Your task to perform on an android device: turn off smart reply in the gmail app Image 0: 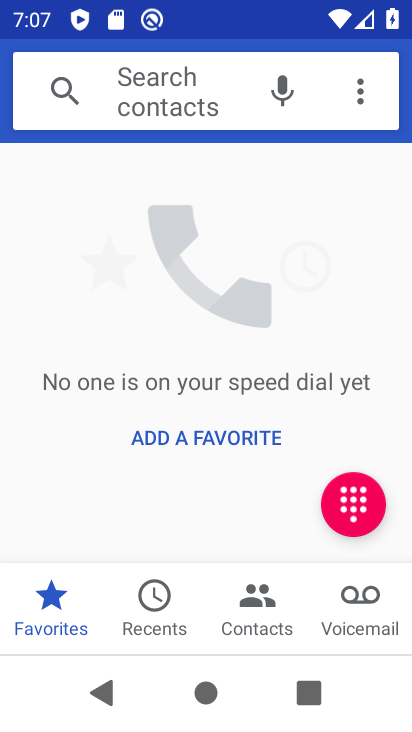
Step 0: press home button
Your task to perform on an android device: turn off smart reply in the gmail app Image 1: 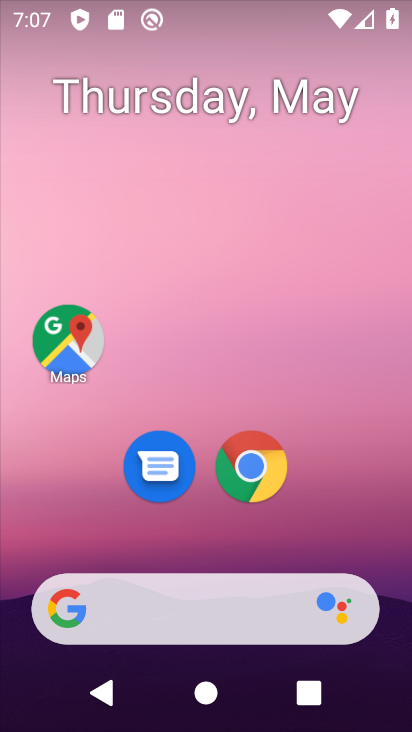
Step 1: drag from (333, 519) to (283, 11)
Your task to perform on an android device: turn off smart reply in the gmail app Image 2: 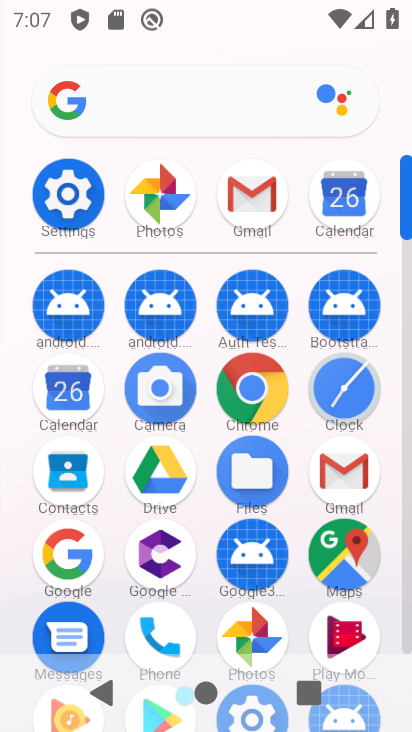
Step 2: click (252, 194)
Your task to perform on an android device: turn off smart reply in the gmail app Image 3: 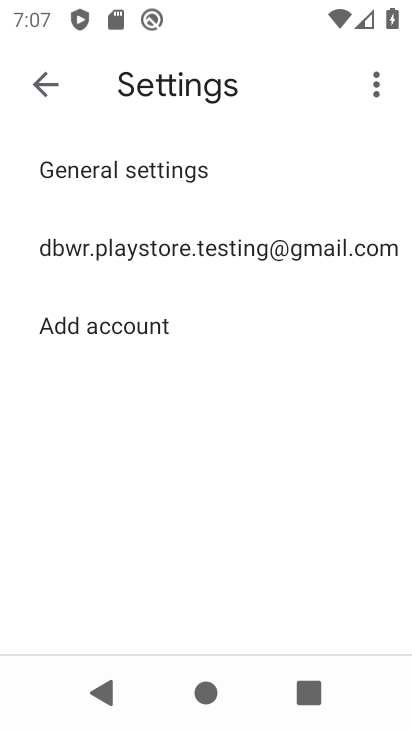
Step 3: click (136, 243)
Your task to perform on an android device: turn off smart reply in the gmail app Image 4: 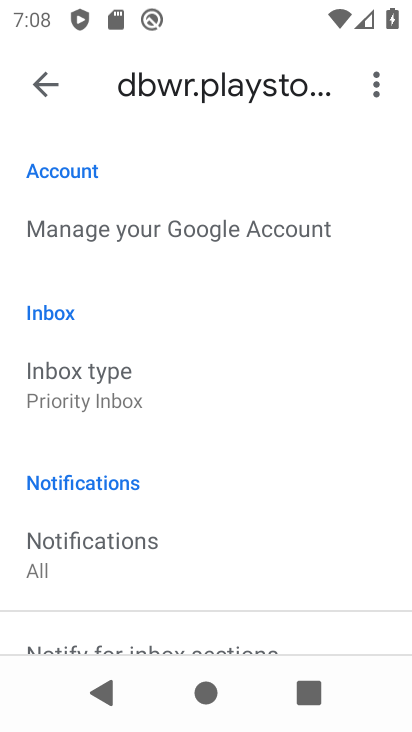
Step 4: drag from (239, 474) to (215, 204)
Your task to perform on an android device: turn off smart reply in the gmail app Image 5: 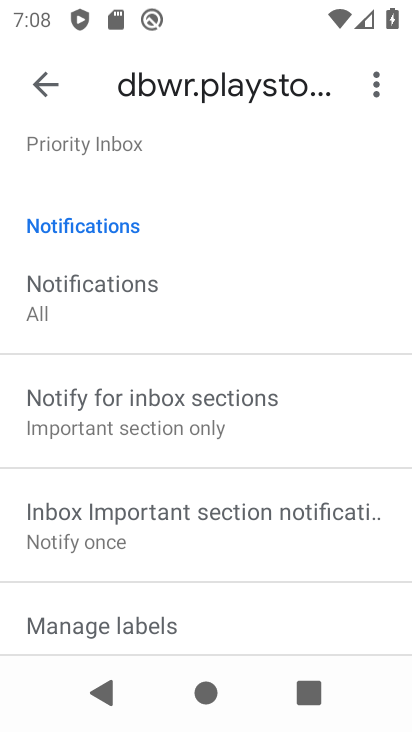
Step 5: drag from (221, 567) to (173, 232)
Your task to perform on an android device: turn off smart reply in the gmail app Image 6: 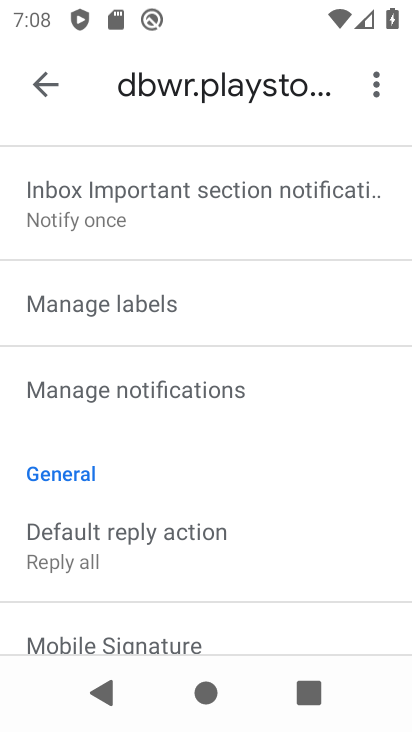
Step 6: drag from (202, 569) to (181, 236)
Your task to perform on an android device: turn off smart reply in the gmail app Image 7: 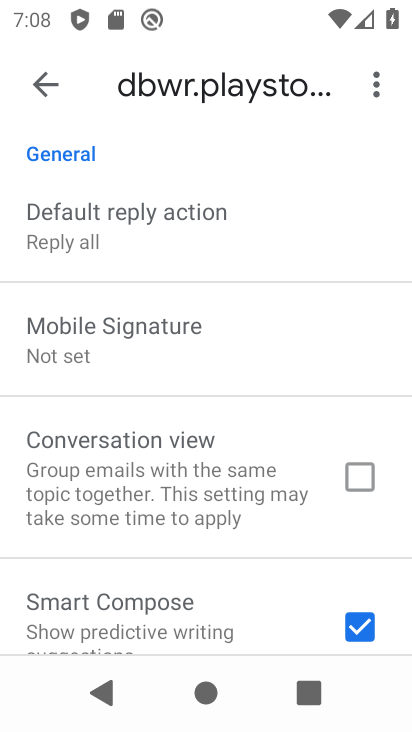
Step 7: drag from (190, 557) to (181, 364)
Your task to perform on an android device: turn off smart reply in the gmail app Image 8: 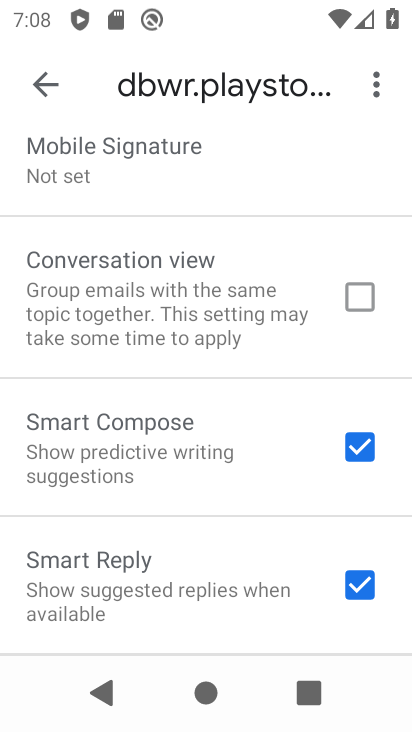
Step 8: click (364, 584)
Your task to perform on an android device: turn off smart reply in the gmail app Image 9: 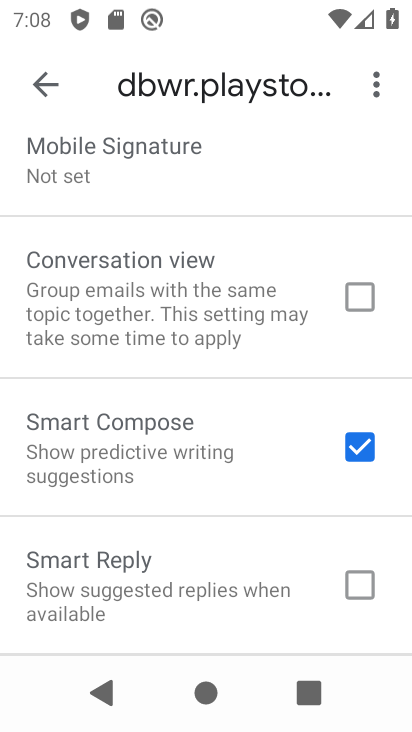
Step 9: task complete